Your task to perform on an android device: Show the shopping cart on ebay.com. Search for "jbl flip 4" on ebay.com, select the first entry, and add it to the cart. Image 0: 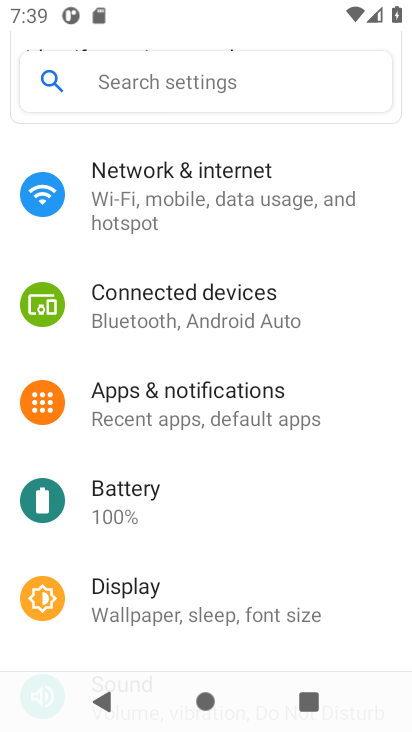
Step 0: press home button
Your task to perform on an android device: Show the shopping cart on ebay.com. Search for "jbl flip 4" on ebay.com, select the first entry, and add it to the cart. Image 1: 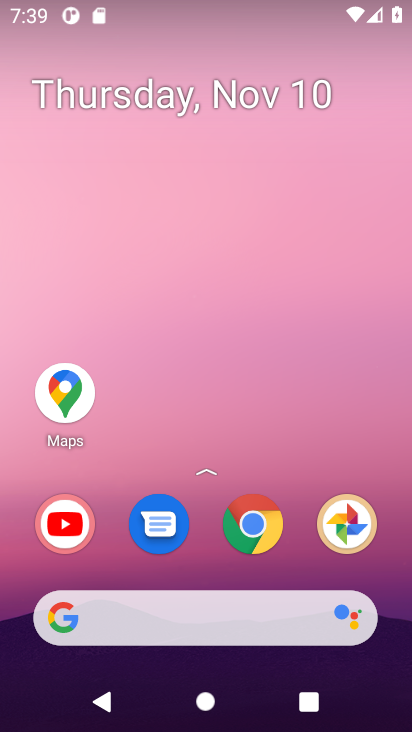
Step 1: click (257, 526)
Your task to perform on an android device: Show the shopping cart on ebay.com. Search for "jbl flip 4" on ebay.com, select the first entry, and add it to the cart. Image 2: 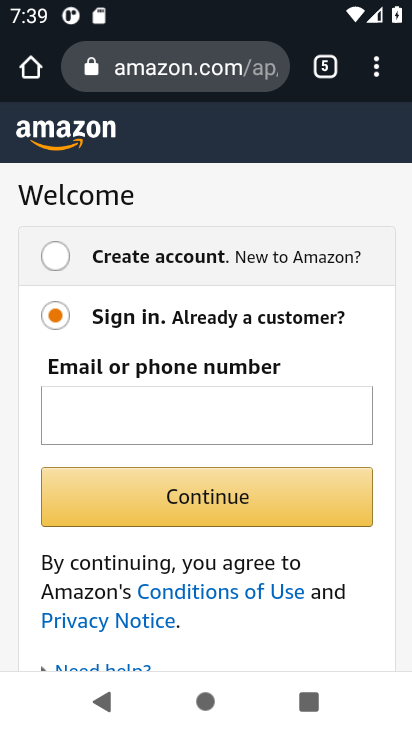
Step 2: click (325, 64)
Your task to perform on an android device: Show the shopping cart on ebay.com. Search for "jbl flip 4" on ebay.com, select the first entry, and add it to the cart. Image 3: 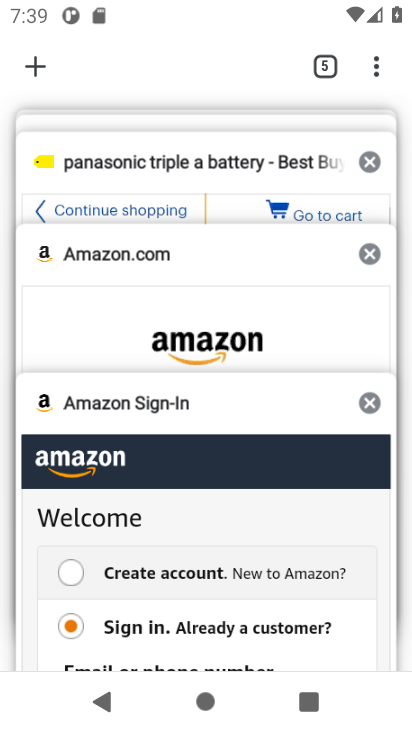
Step 3: click (370, 247)
Your task to perform on an android device: Show the shopping cart on ebay.com. Search for "jbl flip 4" on ebay.com, select the first entry, and add it to the cart. Image 4: 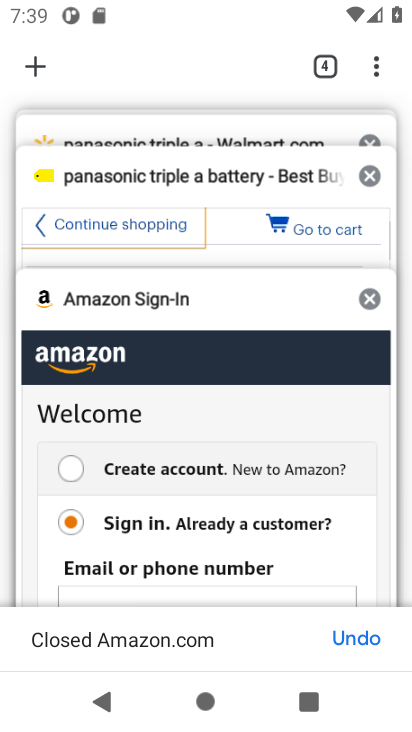
Step 4: click (30, 64)
Your task to perform on an android device: Show the shopping cart on ebay.com. Search for "jbl flip 4" on ebay.com, select the first entry, and add it to the cart. Image 5: 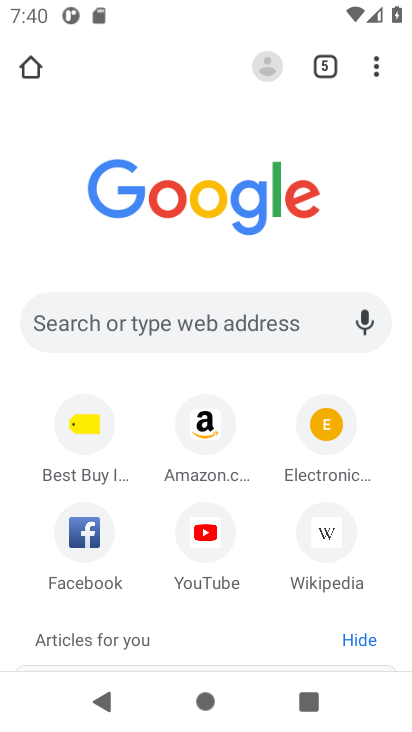
Step 5: click (228, 319)
Your task to perform on an android device: Show the shopping cart on ebay.com. Search for "jbl flip 4" on ebay.com, select the first entry, and add it to the cart. Image 6: 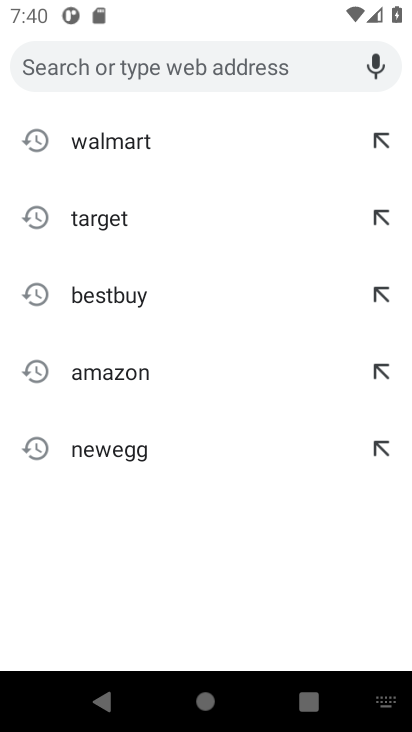
Step 6: type "ebay"
Your task to perform on an android device: Show the shopping cart on ebay.com. Search for "jbl flip 4" on ebay.com, select the first entry, and add it to the cart. Image 7: 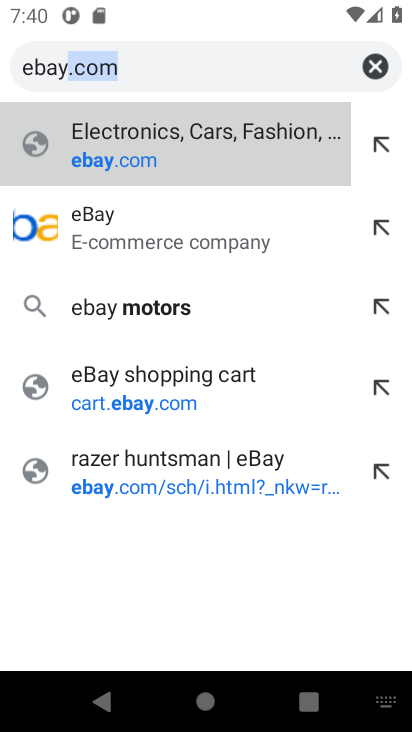
Step 7: click (135, 238)
Your task to perform on an android device: Show the shopping cart on ebay.com. Search for "jbl flip 4" on ebay.com, select the first entry, and add it to the cart. Image 8: 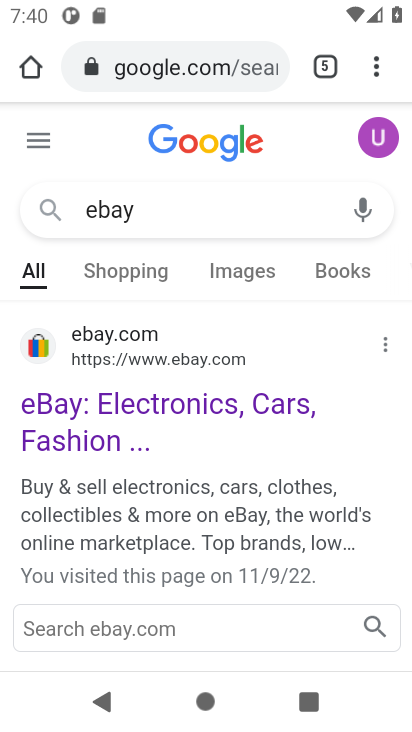
Step 8: click (82, 627)
Your task to perform on an android device: Show the shopping cart on ebay.com. Search for "jbl flip 4" on ebay.com, select the first entry, and add it to the cart. Image 9: 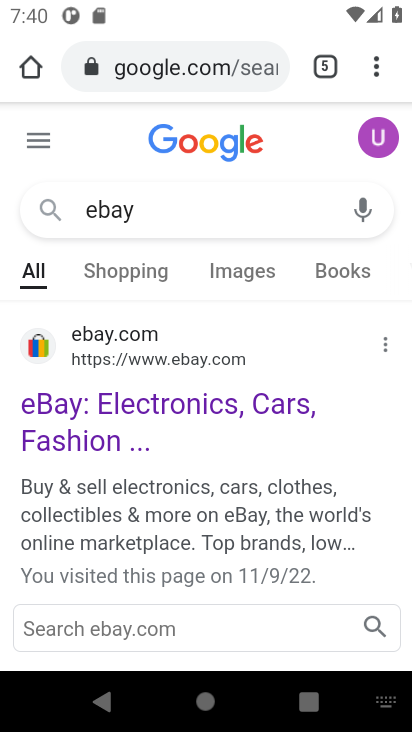
Step 9: type "jbl flip 4"
Your task to perform on an android device: Show the shopping cart on ebay.com. Search for "jbl flip 4" on ebay.com, select the first entry, and add it to the cart. Image 10: 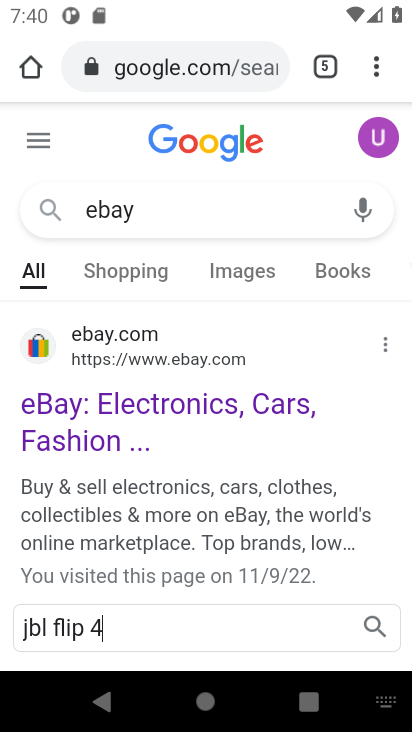
Step 10: click (376, 622)
Your task to perform on an android device: Show the shopping cart on ebay.com. Search for "jbl flip 4" on ebay.com, select the first entry, and add it to the cart. Image 11: 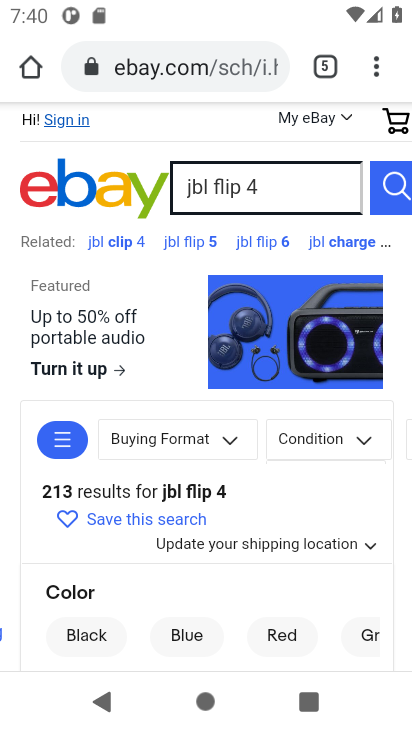
Step 11: drag from (267, 513) to (353, 244)
Your task to perform on an android device: Show the shopping cart on ebay.com. Search for "jbl flip 4" on ebay.com, select the first entry, and add it to the cart. Image 12: 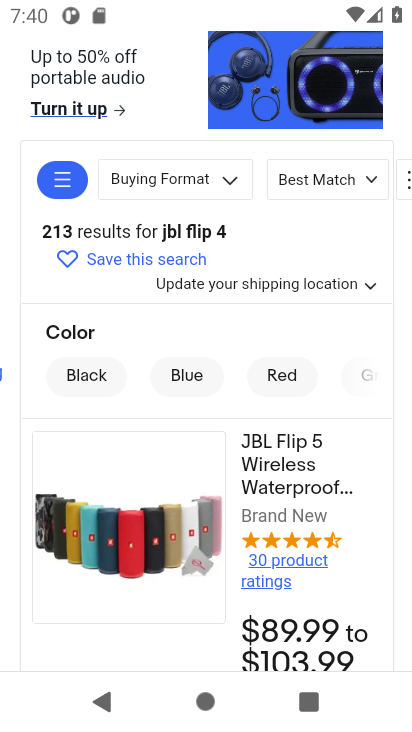
Step 12: drag from (328, 530) to (370, 253)
Your task to perform on an android device: Show the shopping cart on ebay.com. Search for "jbl flip 4" on ebay.com, select the first entry, and add it to the cart. Image 13: 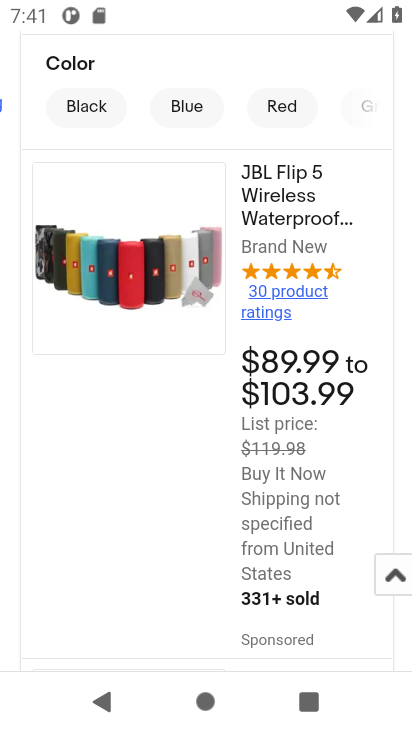
Step 13: click (310, 187)
Your task to perform on an android device: Show the shopping cart on ebay.com. Search for "jbl flip 4" on ebay.com, select the first entry, and add it to the cart. Image 14: 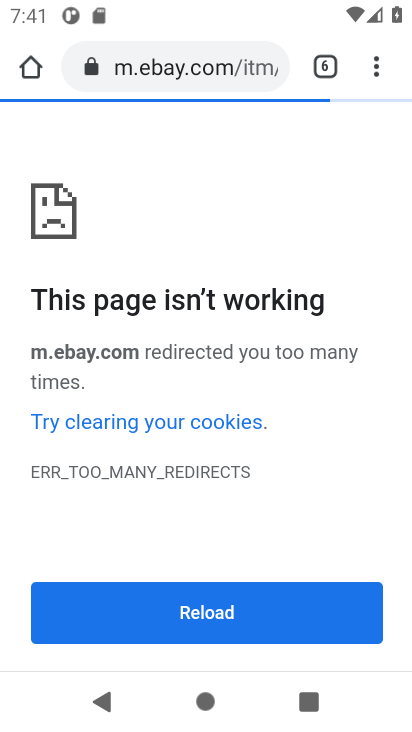
Step 14: task complete